Your task to perform on an android device: turn off improve location accuracy Image 0: 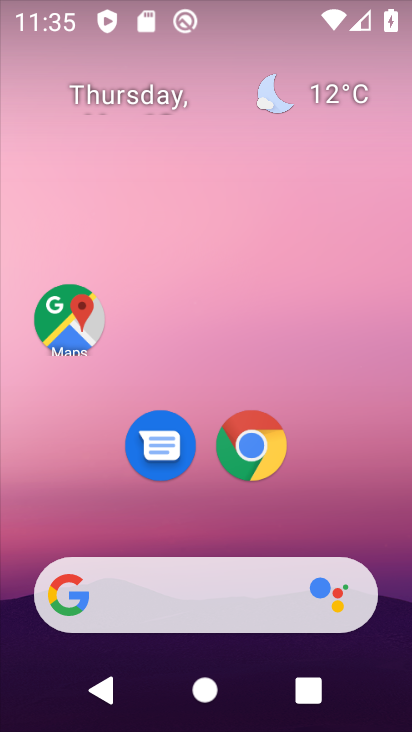
Step 0: drag from (209, 594) to (14, 21)
Your task to perform on an android device: turn off improve location accuracy Image 1: 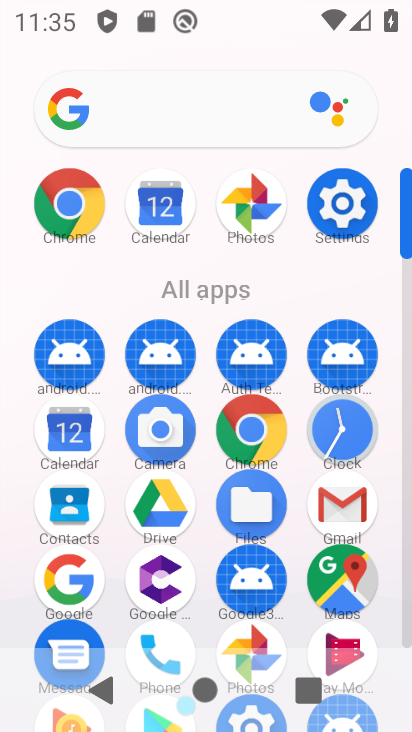
Step 1: click (314, 220)
Your task to perform on an android device: turn off improve location accuracy Image 2: 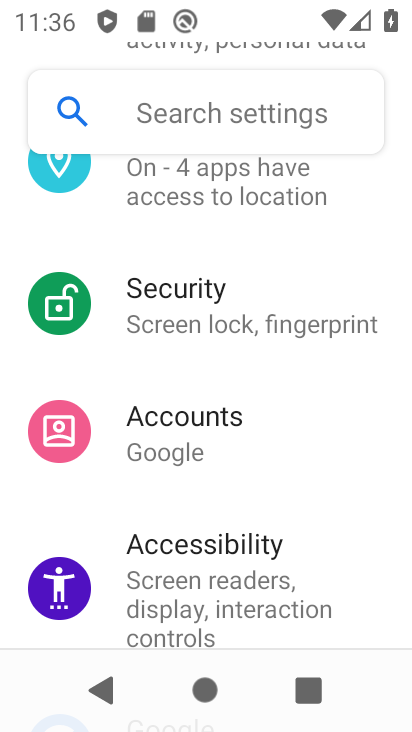
Step 2: click (162, 190)
Your task to perform on an android device: turn off improve location accuracy Image 3: 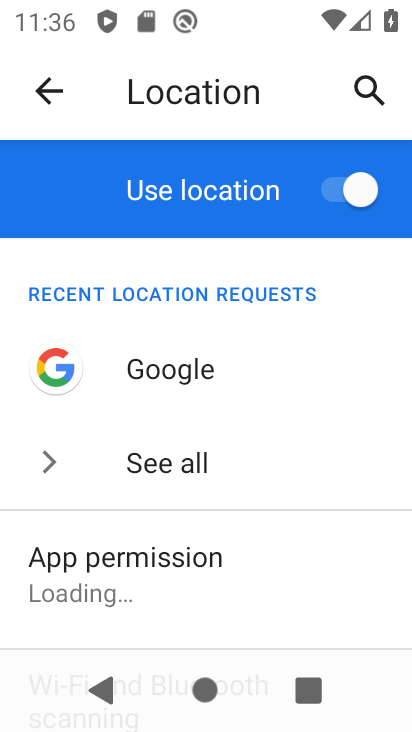
Step 3: drag from (185, 587) to (251, 0)
Your task to perform on an android device: turn off improve location accuracy Image 4: 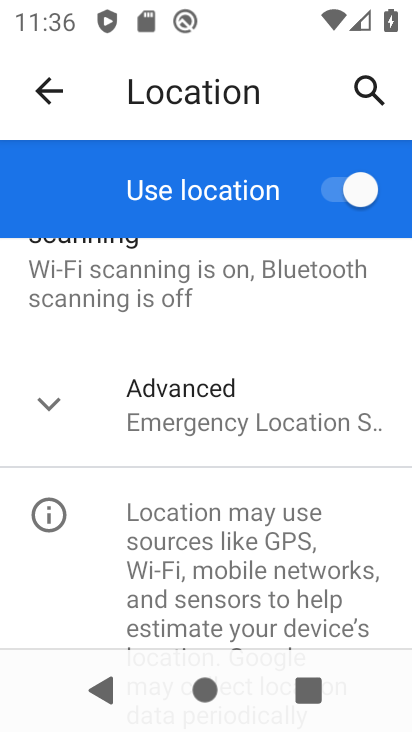
Step 4: click (196, 433)
Your task to perform on an android device: turn off improve location accuracy Image 5: 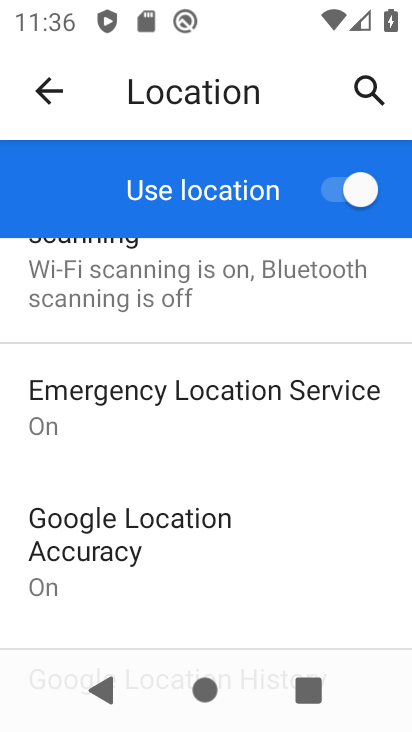
Step 5: click (133, 550)
Your task to perform on an android device: turn off improve location accuracy Image 6: 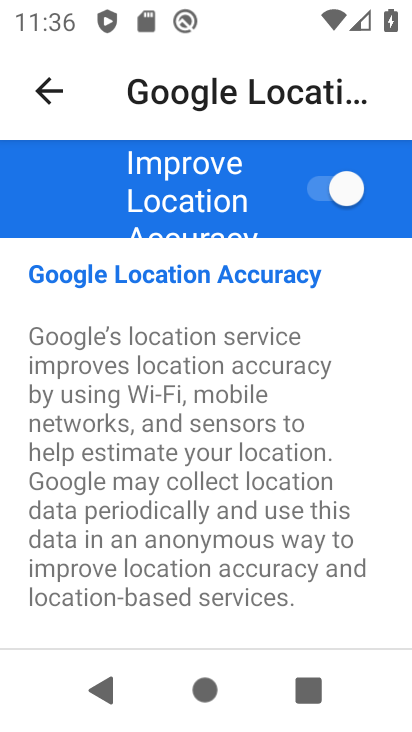
Step 6: click (325, 200)
Your task to perform on an android device: turn off improve location accuracy Image 7: 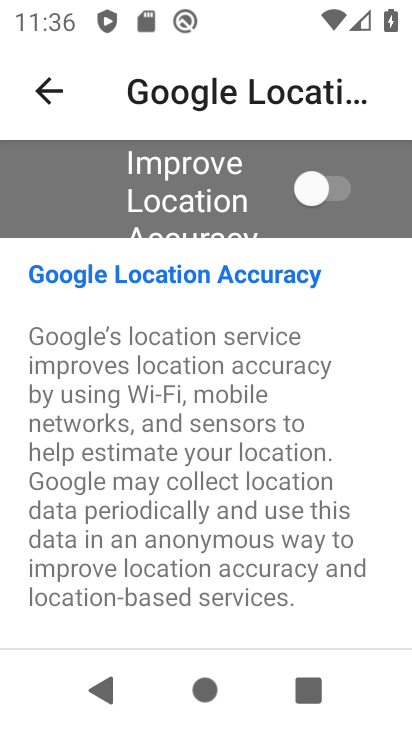
Step 7: task complete